Your task to perform on an android device: Open Chrome and go to settings Image 0: 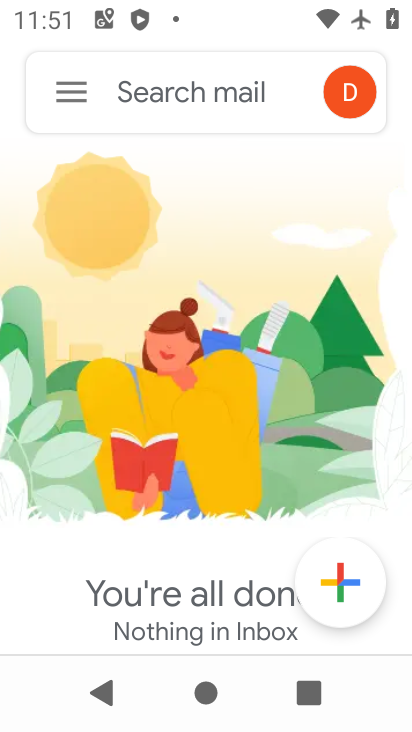
Step 0: click (70, 102)
Your task to perform on an android device: Open Chrome and go to settings Image 1: 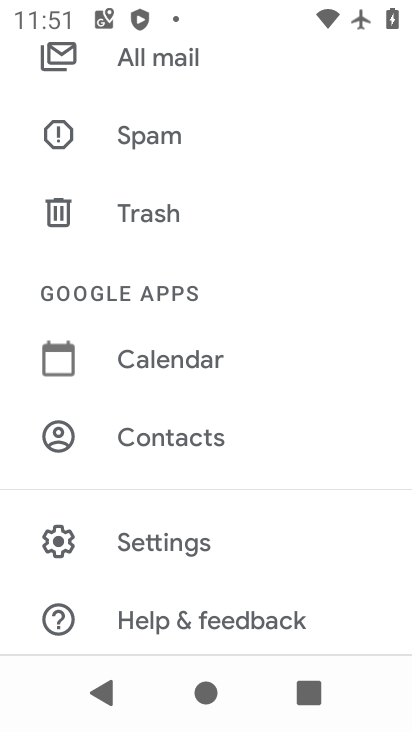
Step 1: press home button
Your task to perform on an android device: Open Chrome and go to settings Image 2: 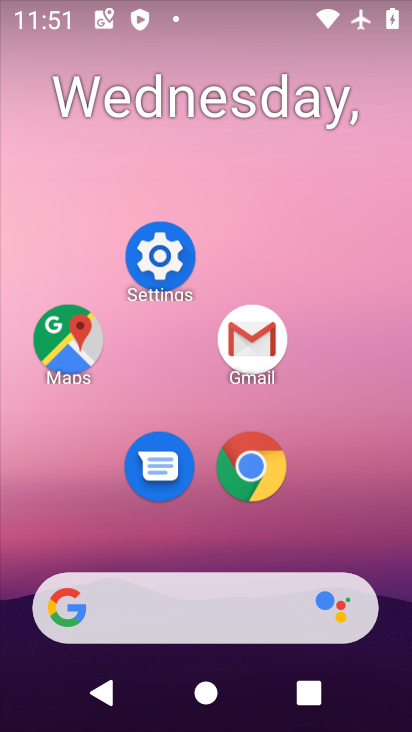
Step 2: drag from (223, 527) to (346, 104)
Your task to perform on an android device: Open Chrome and go to settings Image 3: 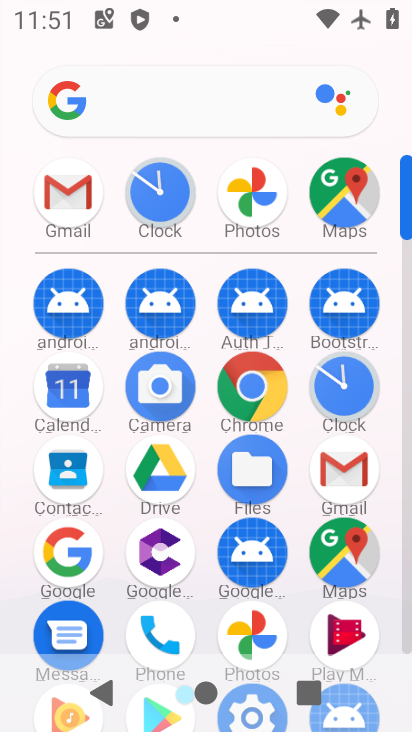
Step 3: click (254, 378)
Your task to perform on an android device: Open Chrome and go to settings Image 4: 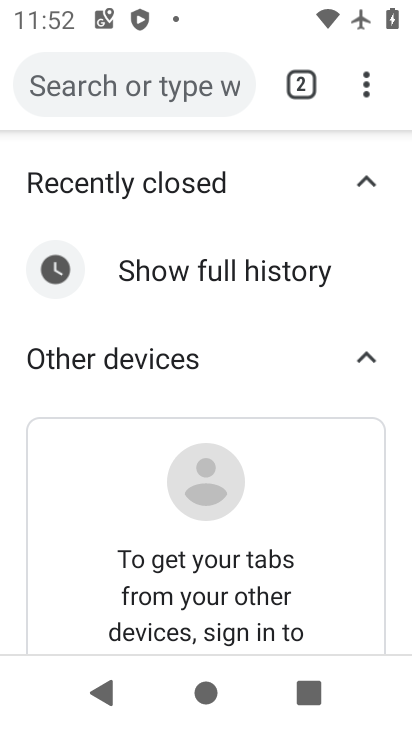
Step 4: drag from (236, 574) to (307, 190)
Your task to perform on an android device: Open Chrome and go to settings Image 5: 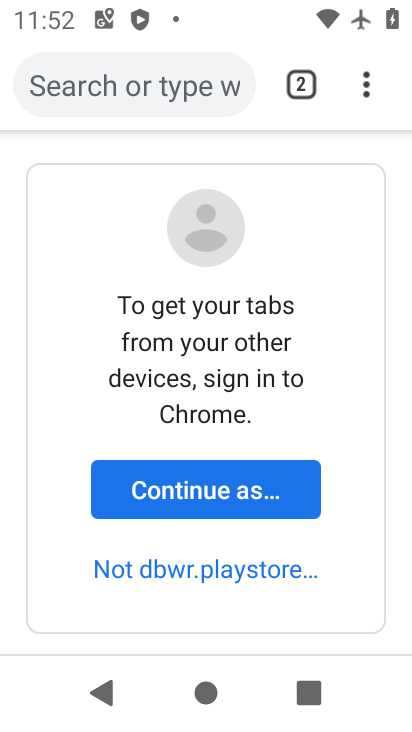
Step 5: drag from (256, 249) to (195, 704)
Your task to perform on an android device: Open Chrome and go to settings Image 6: 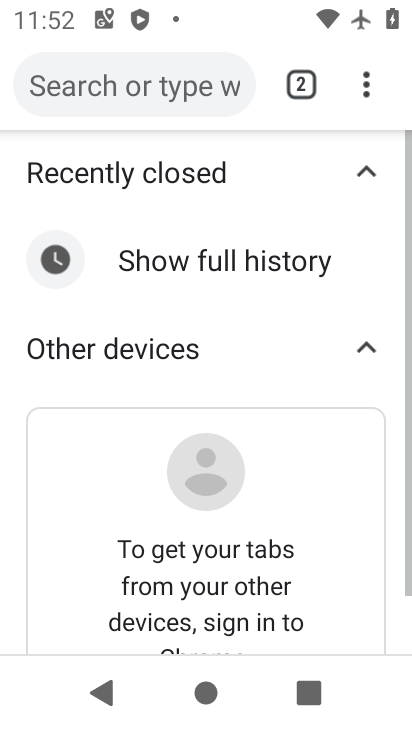
Step 6: click (360, 83)
Your task to perform on an android device: Open Chrome and go to settings Image 7: 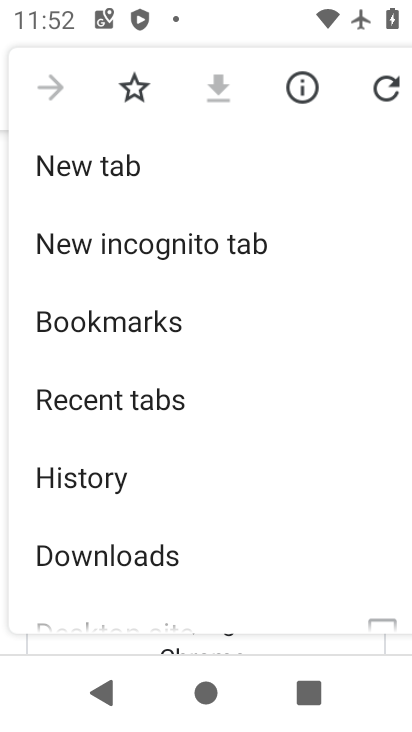
Step 7: drag from (155, 566) to (209, 257)
Your task to perform on an android device: Open Chrome and go to settings Image 8: 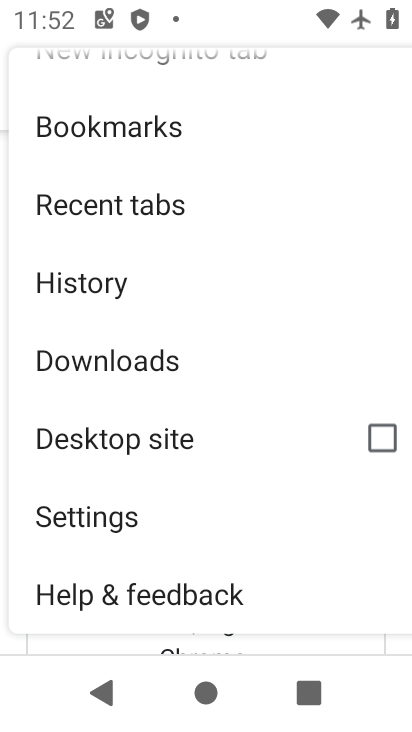
Step 8: click (161, 504)
Your task to perform on an android device: Open Chrome and go to settings Image 9: 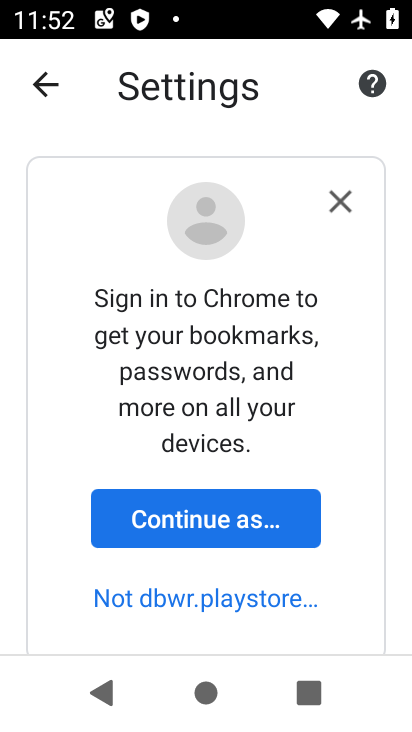
Step 9: drag from (203, 579) to (214, 415)
Your task to perform on an android device: Open Chrome and go to settings Image 10: 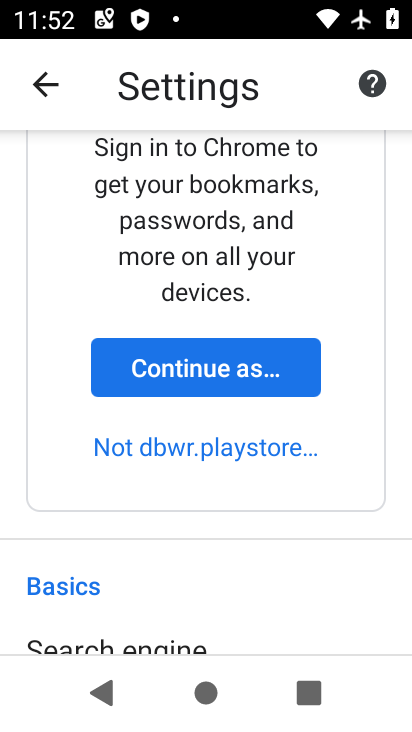
Step 10: drag from (155, 597) to (155, 393)
Your task to perform on an android device: Open Chrome and go to settings Image 11: 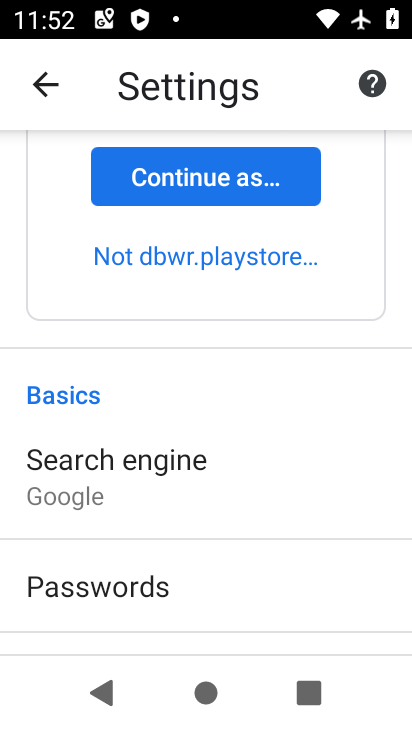
Step 11: drag from (157, 583) to (248, 119)
Your task to perform on an android device: Open Chrome and go to settings Image 12: 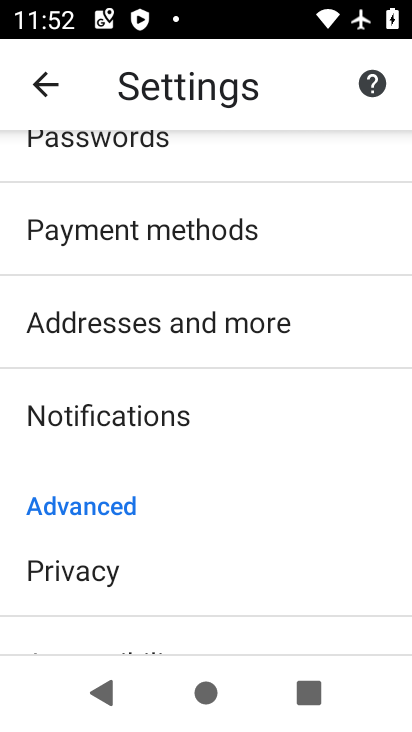
Step 12: drag from (139, 583) to (177, 231)
Your task to perform on an android device: Open Chrome and go to settings Image 13: 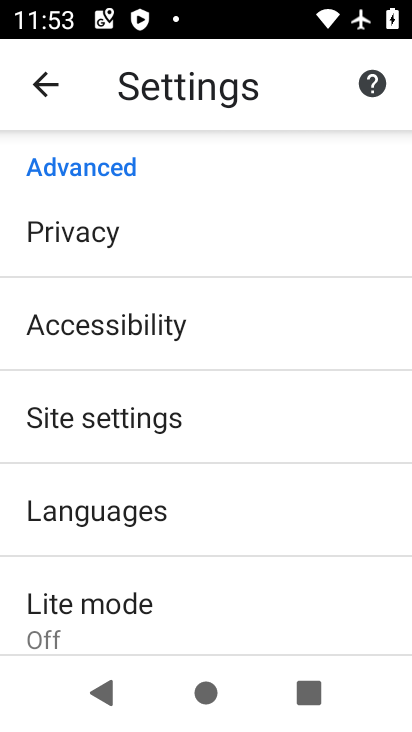
Step 13: click (291, 217)
Your task to perform on an android device: Open Chrome and go to settings Image 14: 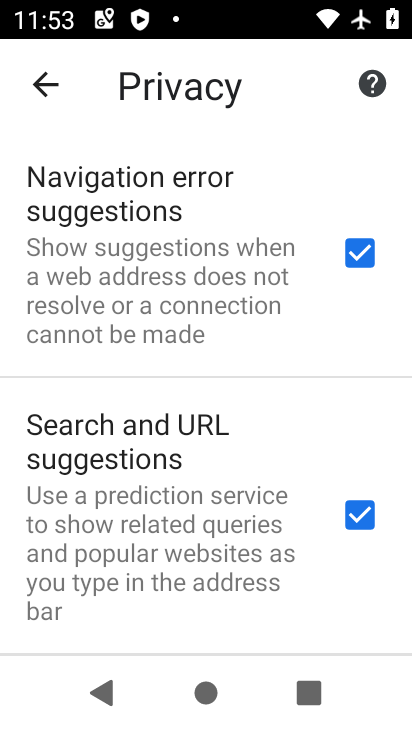
Step 14: task complete